Your task to perform on an android device: open app "Skype" Image 0: 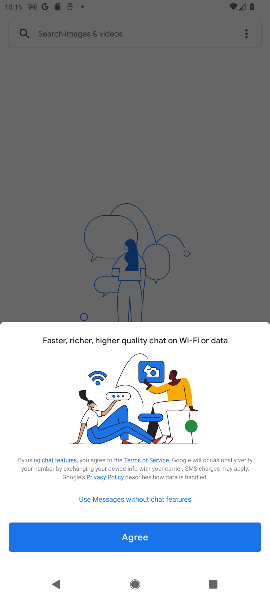
Step 0: press home button
Your task to perform on an android device: open app "Skype" Image 1: 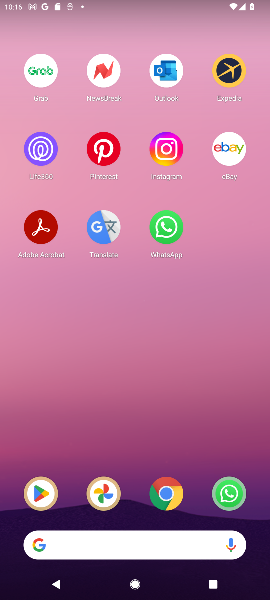
Step 1: click (42, 496)
Your task to perform on an android device: open app "Skype" Image 2: 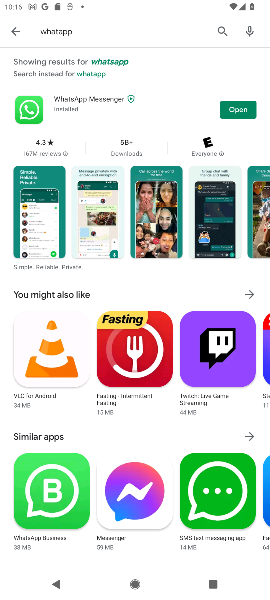
Step 2: click (207, 35)
Your task to perform on an android device: open app "Skype" Image 3: 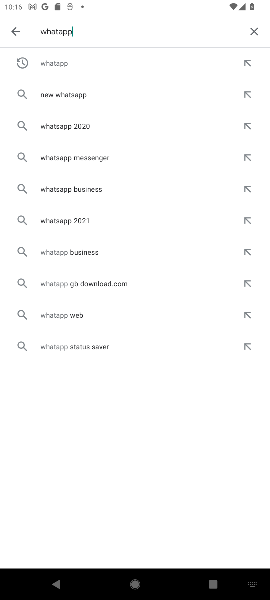
Step 3: click (252, 31)
Your task to perform on an android device: open app "Skype" Image 4: 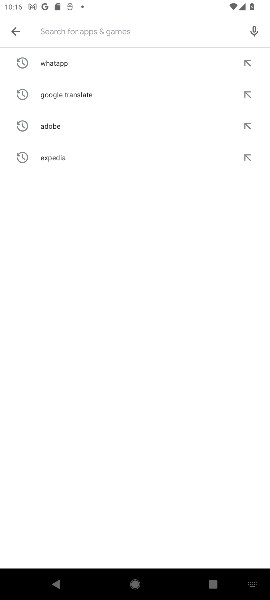
Step 4: type "skype"
Your task to perform on an android device: open app "Skype" Image 5: 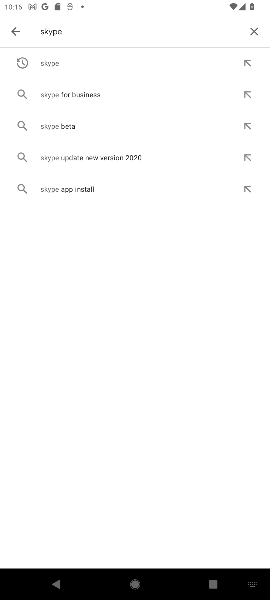
Step 5: click (100, 61)
Your task to perform on an android device: open app "Skype" Image 6: 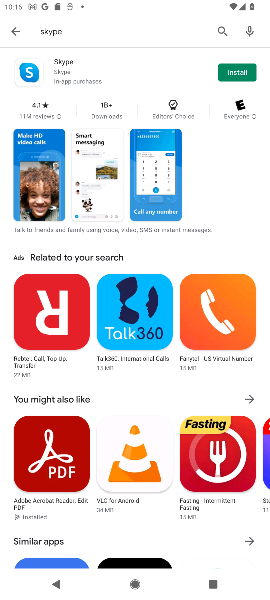
Step 6: click (227, 76)
Your task to perform on an android device: open app "Skype" Image 7: 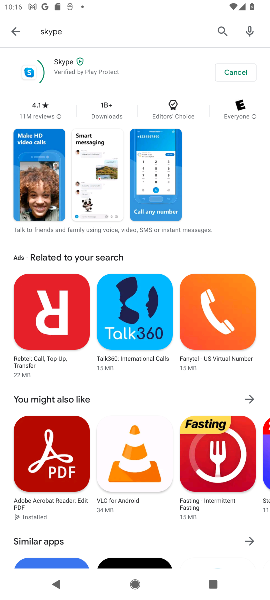
Step 7: task complete